Your task to perform on an android device: change text size in settings app Image 0: 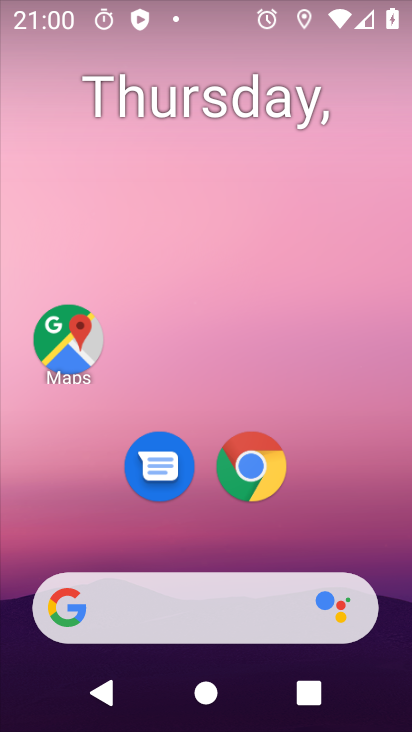
Step 0: drag from (189, 558) to (253, 2)
Your task to perform on an android device: change text size in settings app Image 1: 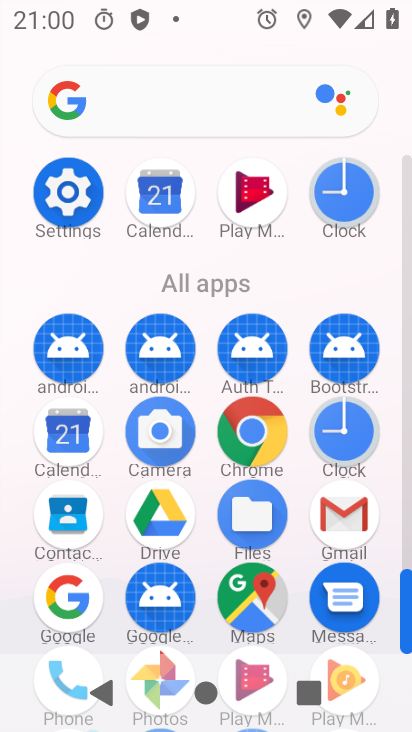
Step 1: click (68, 195)
Your task to perform on an android device: change text size in settings app Image 2: 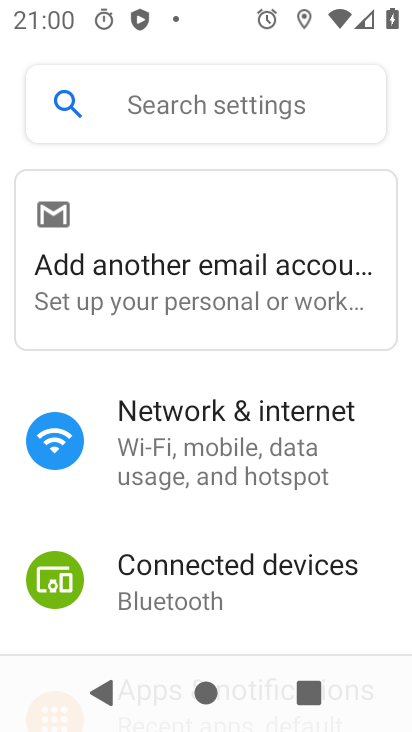
Step 2: drag from (217, 617) to (160, 114)
Your task to perform on an android device: change text size in settings app Image 3: 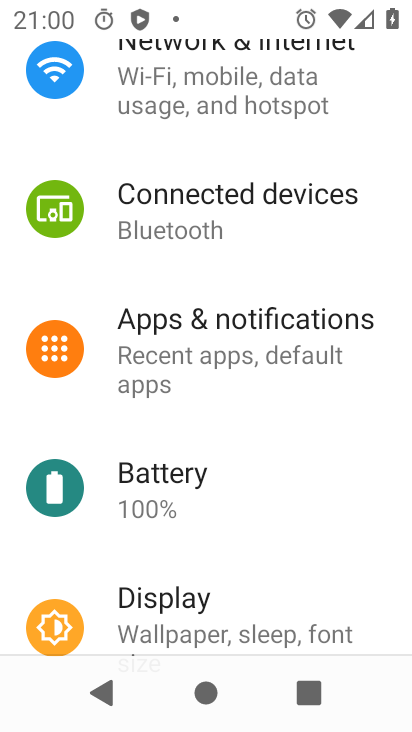
Step 3: click (207, 596)
Your task to perform on an android device: change text size in settings app Image 4: 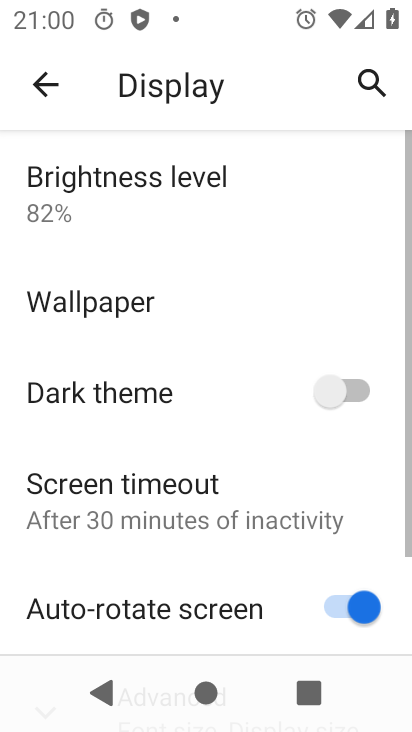
Step 4: drag from (226, 536) to (200, 132)
Your task to perform on an android device: change text size in settings app Image 5: 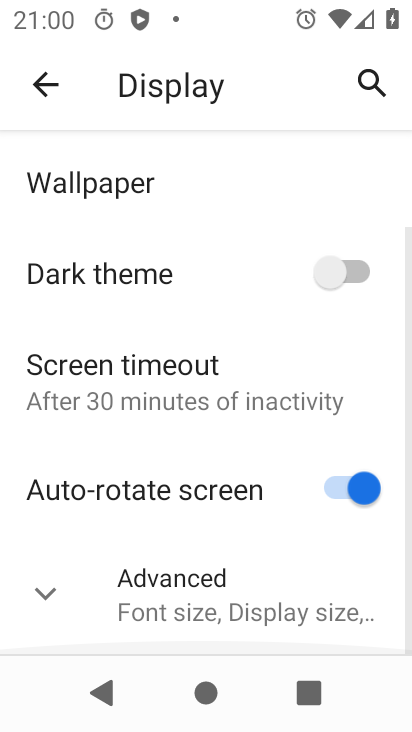
Step 5: click (183, 598)
Your task to perform on an android device: change text size in settings app Image 6: 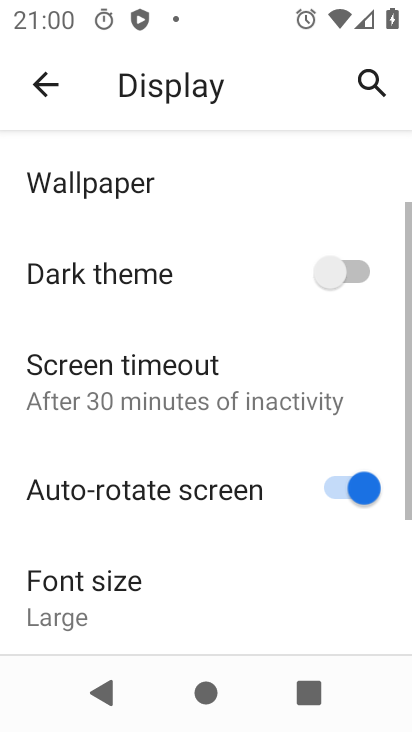
Step 6: click (178, 592)
Your task to perform on an android device: change text size in settings app Image 7: 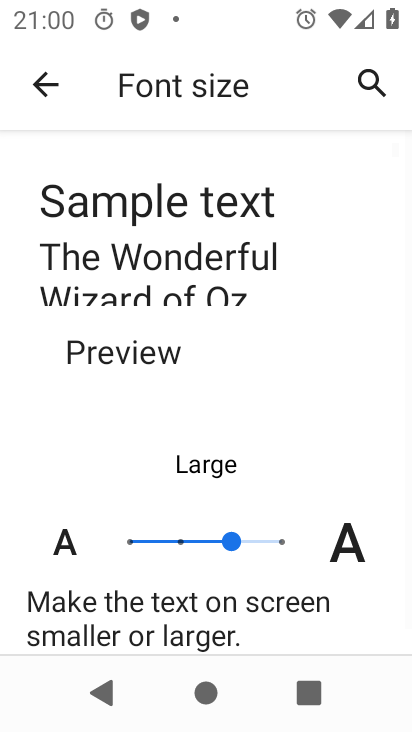
Step 7: click (183, 539)
Your task to perform on an android device: change text size in settings app Image 8: 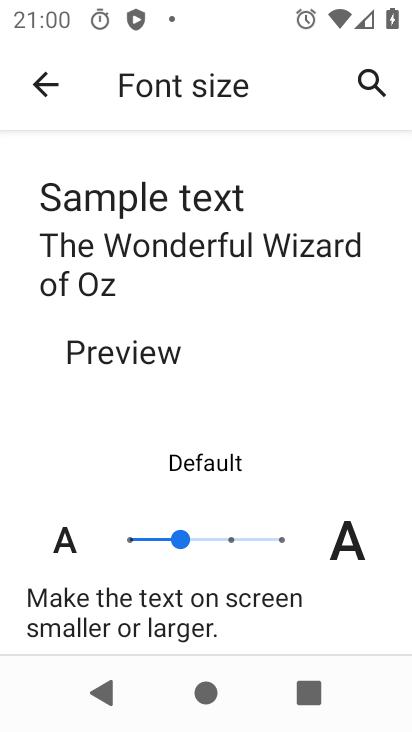
Step 8: task complete